Your task to perform on an android device: turn on showing notifications on the lock screen Image 0: 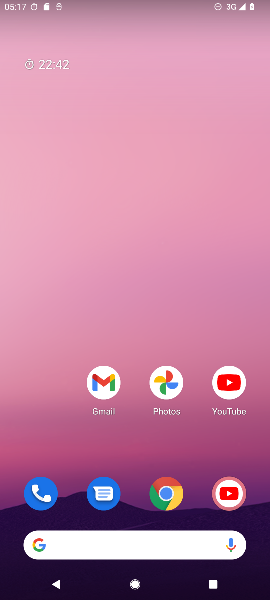
Step 0: press home button
Your task to perform on an android device: turn on showing notifications on the lock screen Image 1: 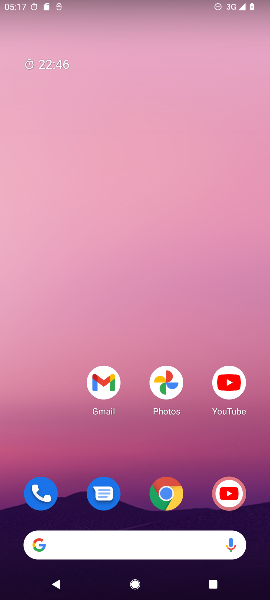
Step 1: drag from (63, 448) to (35, 157)
Your task to perform on an android device: turn on showing notifications on the lock screen Image 2: 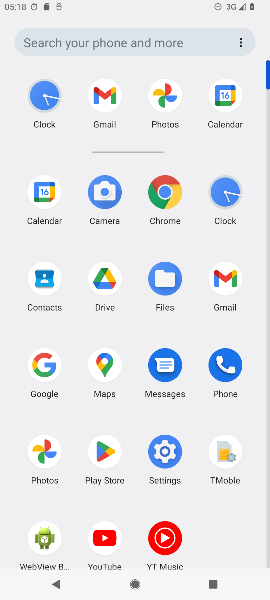
Step 2: click (162, 451)
Your task to perform on an android device: turn on showing notifications on the lock screen Image 3: 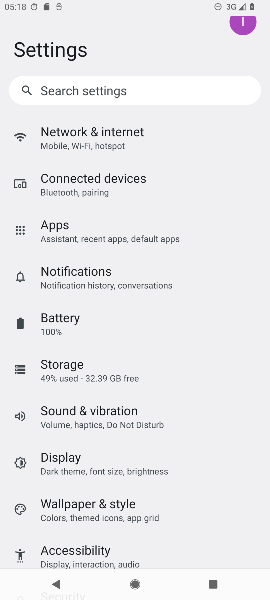
Step 3: drag from (216, 403) to (221, 288)
Your task to perform on an android device: turn on showing notifications on the lock screen Image 4: 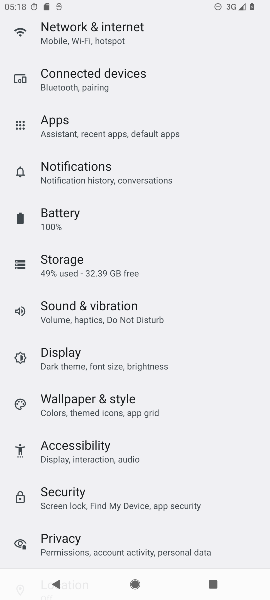
Step 4: drag from (212, 434) to (214, 260)
Your task to perform on an android device: turn on showing notifications on the lock screen Image 5: 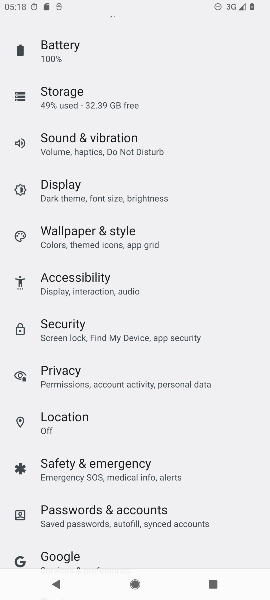
Step 5: drag from (218, 445) to (225, 313)
Your task to perform on an android device: turn on showing notifications on the lock screen Image 6: 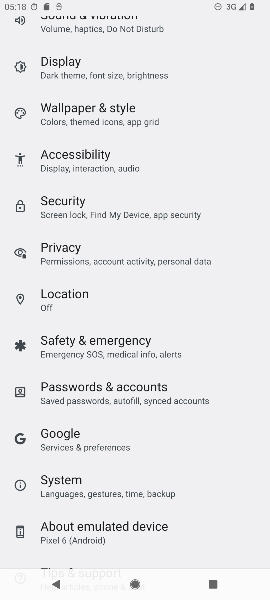
Step 6: drag from (218, 474) to (220, 308)
Your task to perform on an android device: turn on showing notifications on the lock screen Image 7: 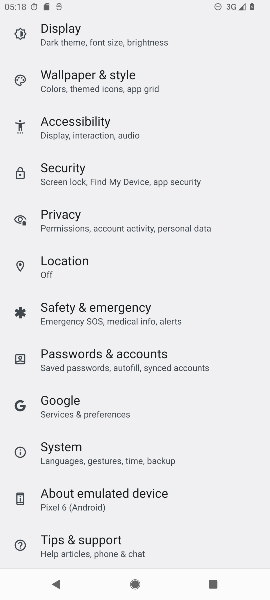
Step 7: drag from (226, 250) to (226, 330)
Your task to perform on an android device: turn on showing notifications on the lock screen Image 8: 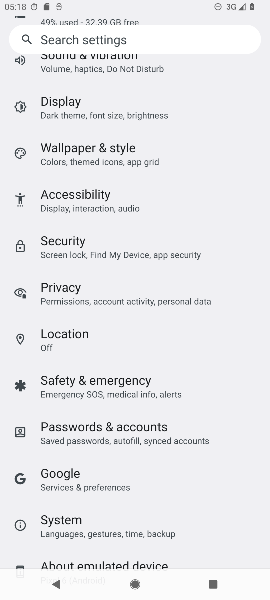
Step 8: drag from (235, 168) to (237, 287)
Your task to perform on an android device: turn on showing notifications on the lock screen Image 9: 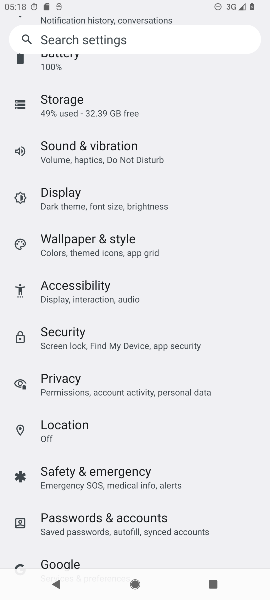
Step 9: drag from (227, 151) to (232, 273)
Your task to perform on an android device: turn on showing notifications on the lock screen Image 10: 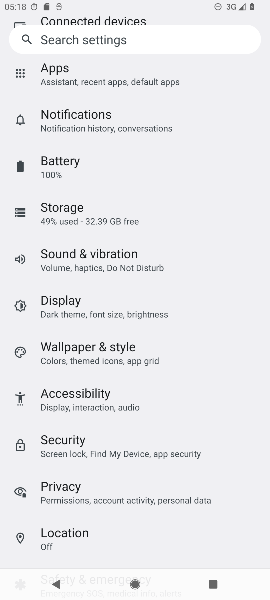
Step 10: drag from (215, 111) to (226, 279)
Your task to perform on an android device: turn on showing notifications on the lock screen Image 11: 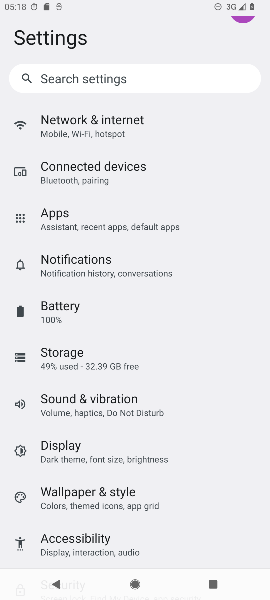
Step 11: click (174, 265)
Your task to perform on an android device: turn on showing notifications on the lock screen Image 12: 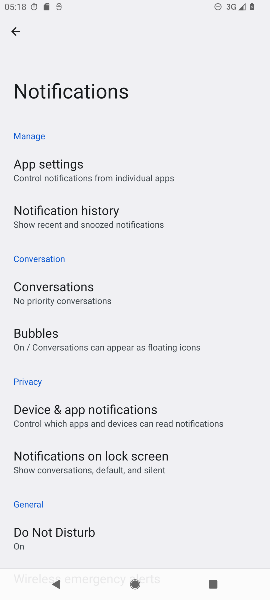
Step 12: drag from (208, 397) to (222, 278)
Your task to perform on an android device: turn on showing notifications on the lock screen Image 13: 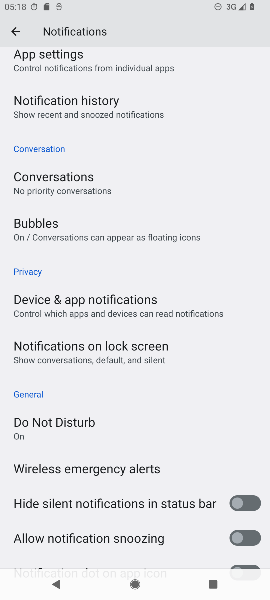
Step 13: drag from (206, 401) to (209, 202)
Your task to perform on an android device: turn on showing notifications on the lock screen Image 14: 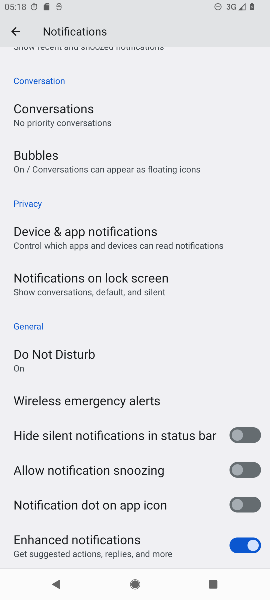
Step 14: click (152, 274)
Your task to perform on an android device: turn on showing notifications on the lock screen Image 15: 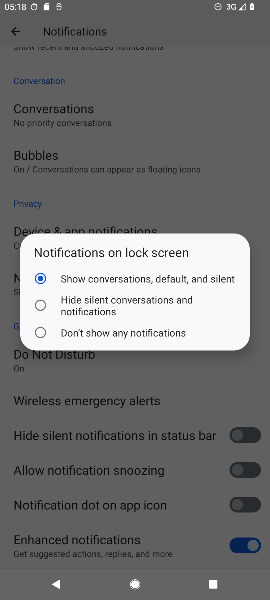
Step 15: task complete